Your task to perform on an android device: open app "Life360: Find Family & Friends" Image 0: 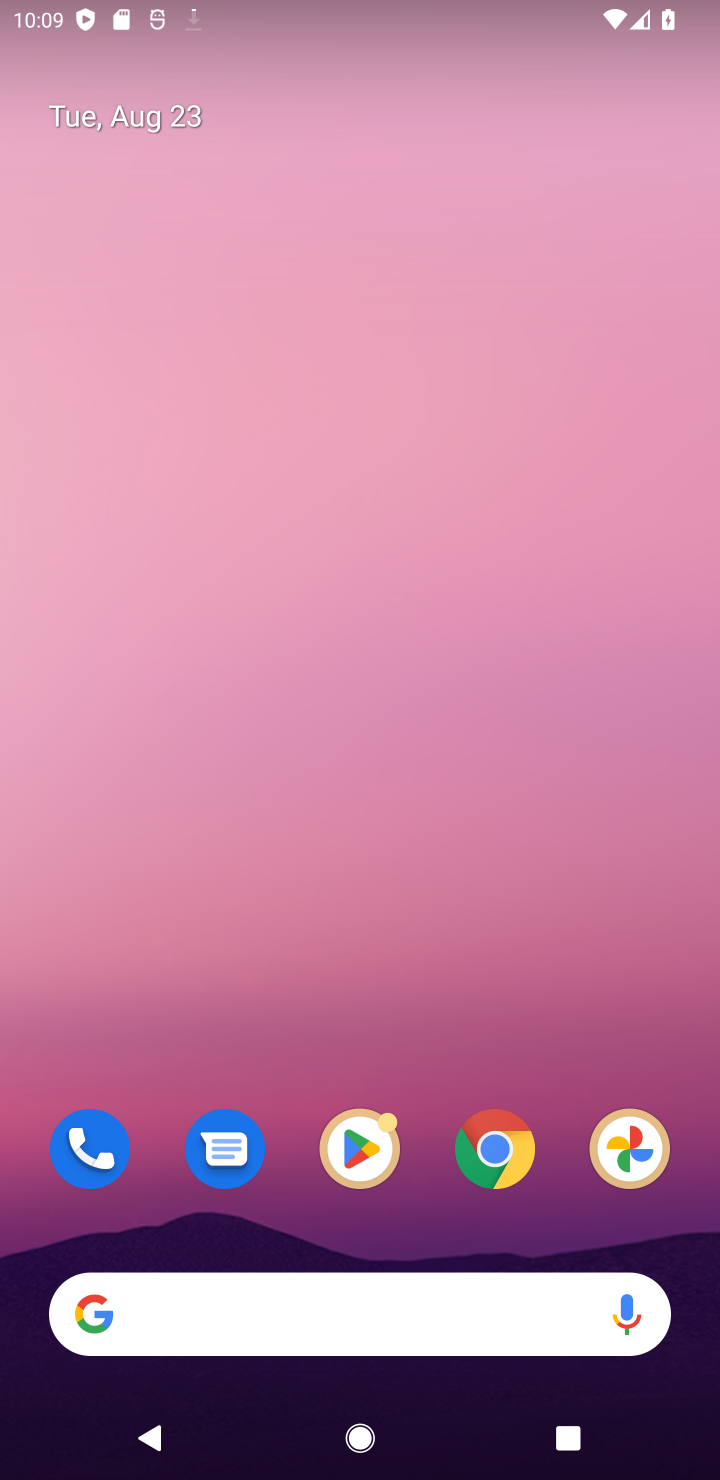
Step 0: click (350, 1160)
Your task to perform on an android device: open app "Life360: Find Family & Friends" Image 1: 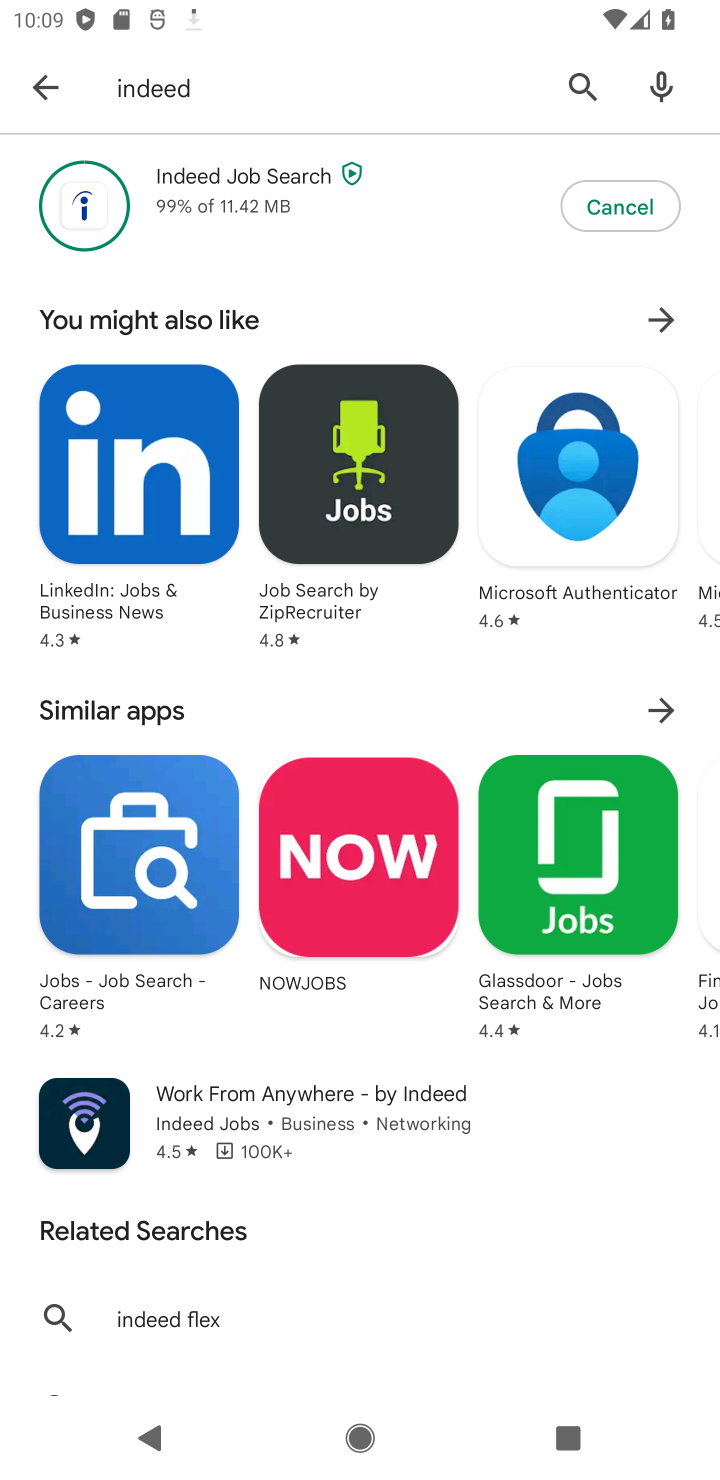
Step 1: click (567, 82)
Your task to perform on an android device: open app "Life360: Find Family & Friends" Image 2: 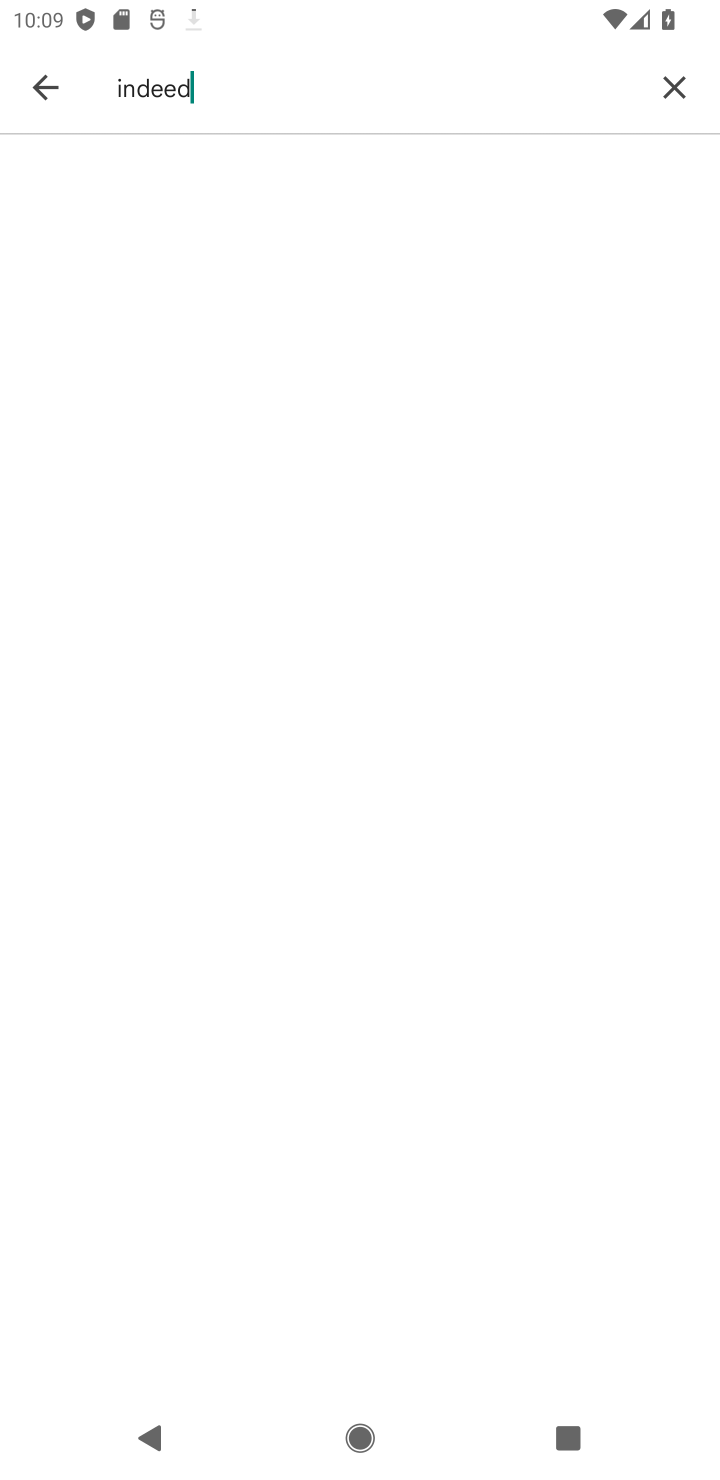
Step 2: click (674, 87)
Your task to perform on an android device: open app "Life360: Find Family & Friends" Image 3: 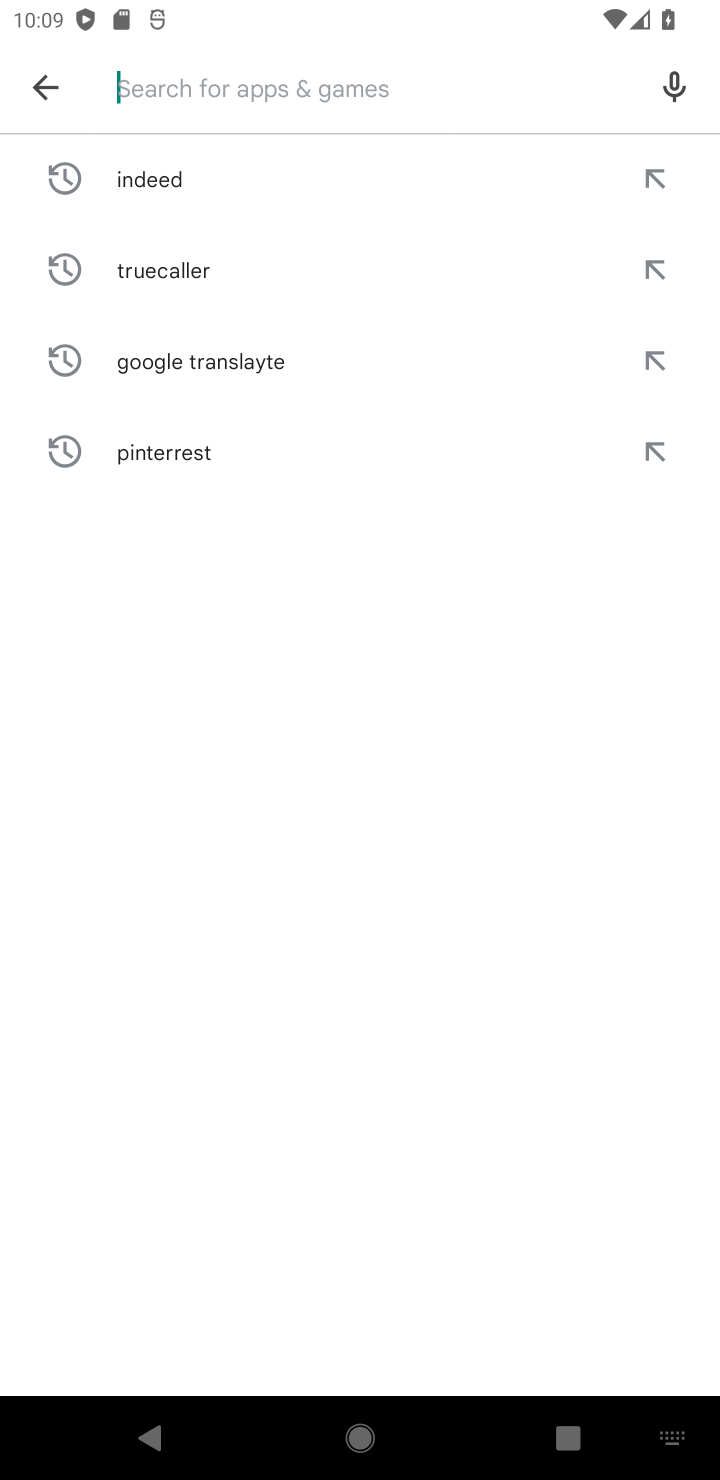
Step 3: type "life 360"
Your task to perform on an android device: open app "Life360: Find Family & Friends" Image 4: 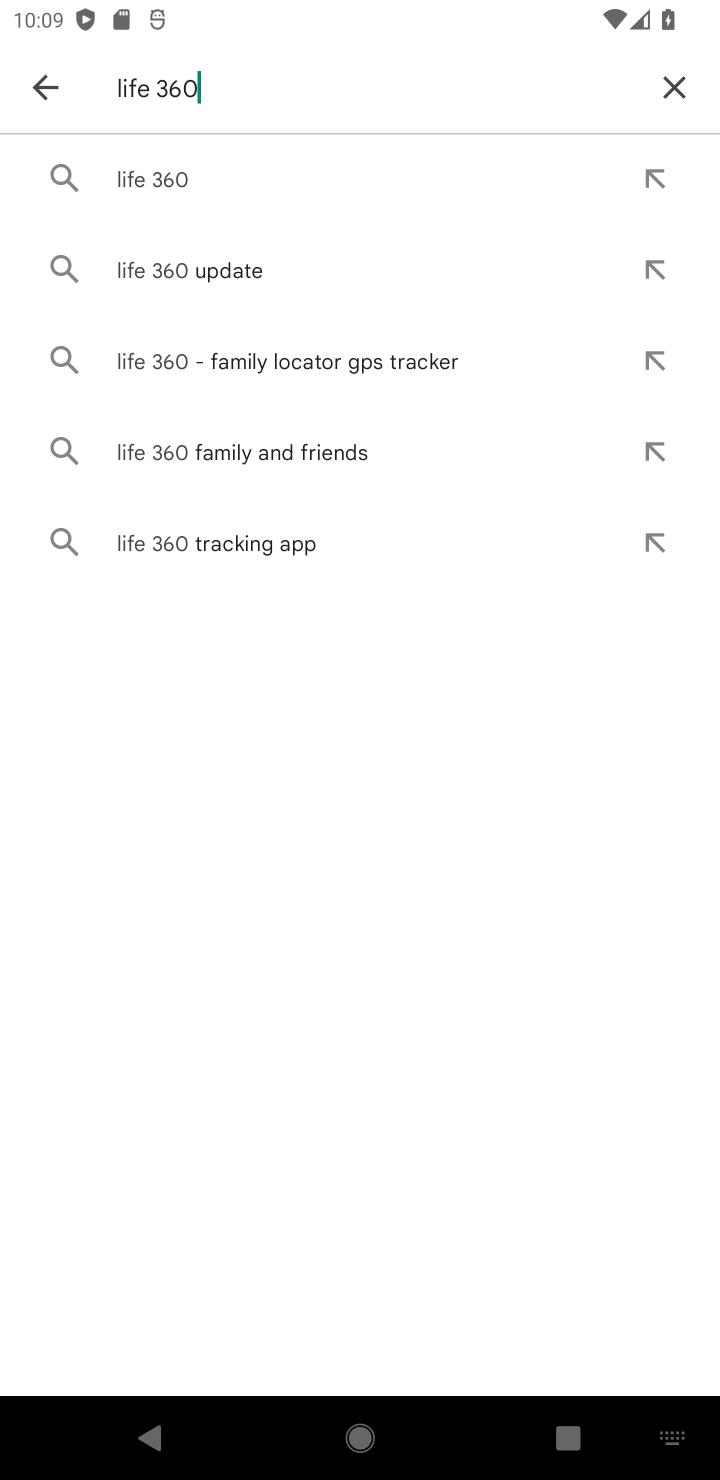
Step 4: click (339, 199)
Your task to perform on an android device: open app "Life360: Find Family & Friends" Image 5: 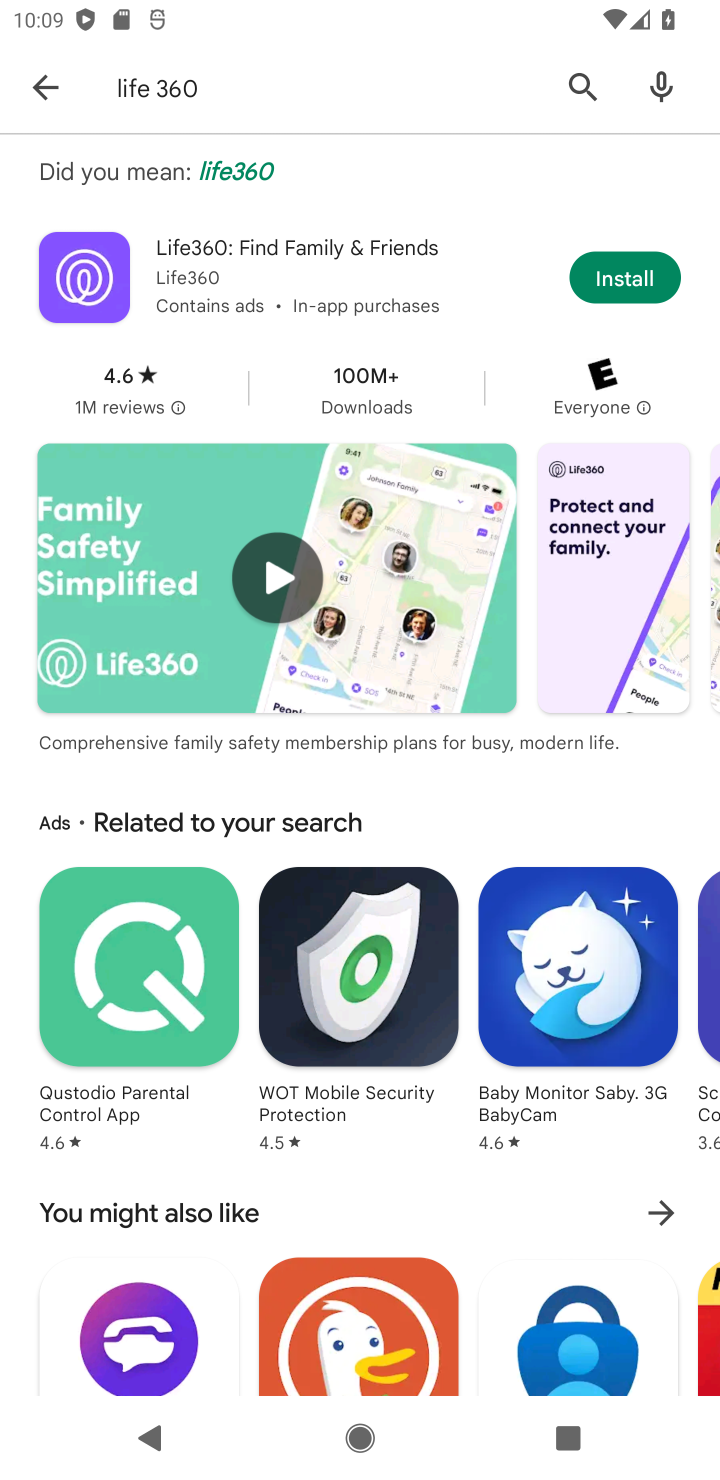
Step 5: click (613, 269)
Your task to perform on an android device: open app "Life360: Find Family & Friends" Image 6: 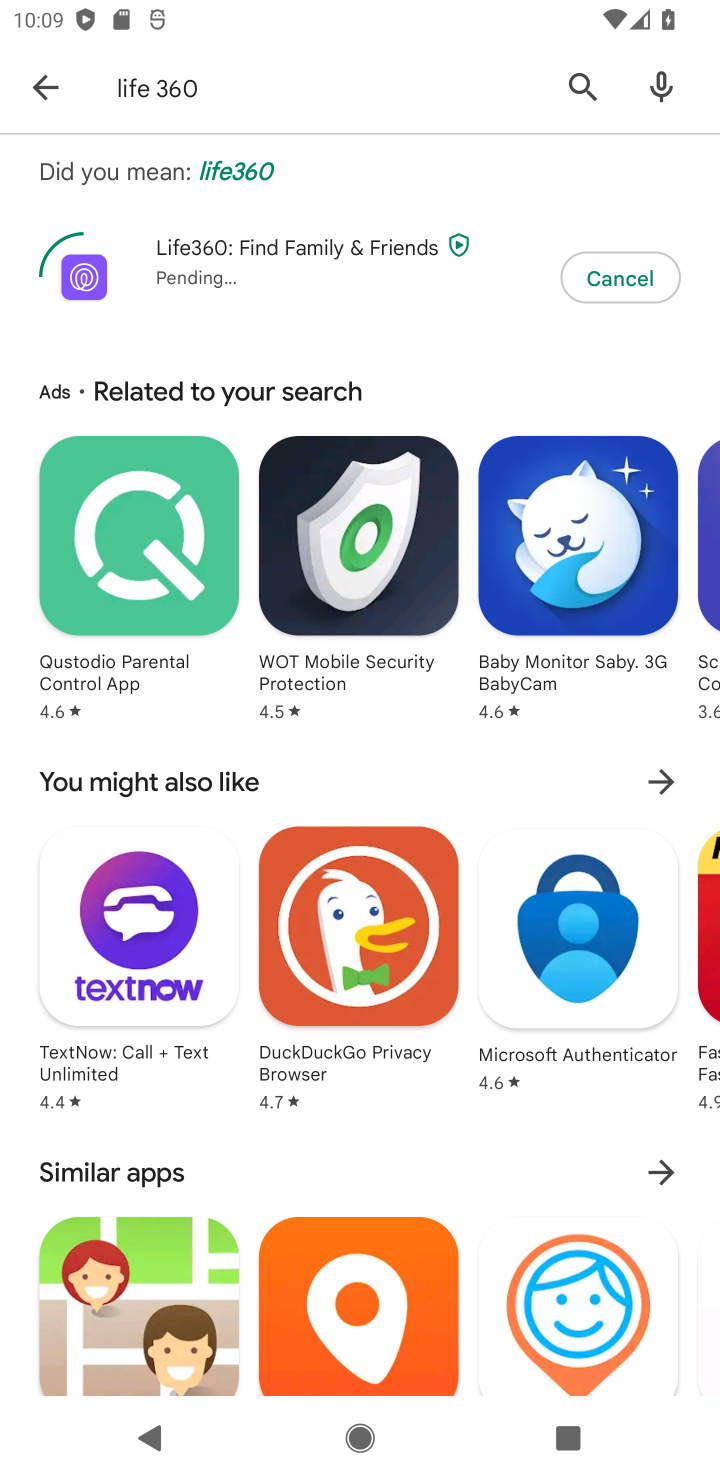
Step 6: task complete